Your task to perform on an android device: Open Chrome and go to the settings page Image 0: 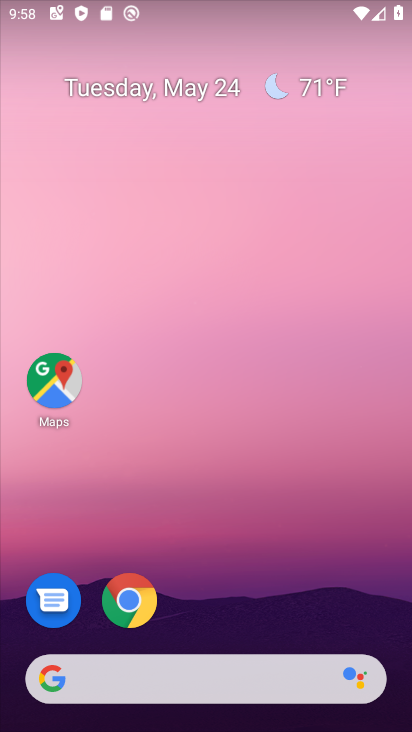
Step 0: click (142, 611)
Your task to perform on an android device: Open Chrome and go to the settings page Image 1: 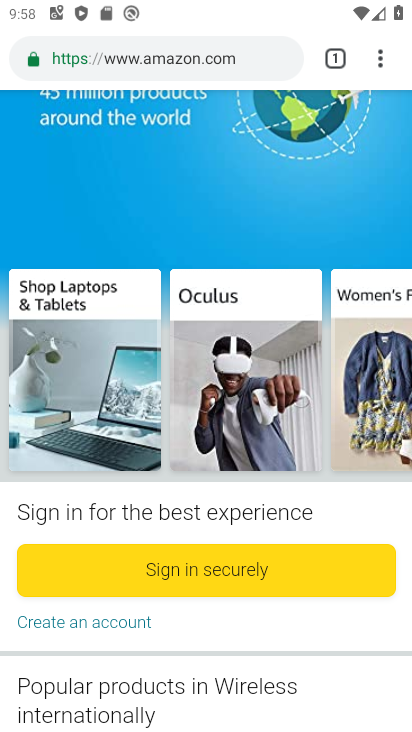
Step 1: click (373, 72)
Your task to perform on an android device: Open Chrome and go to the settings page Image 2: 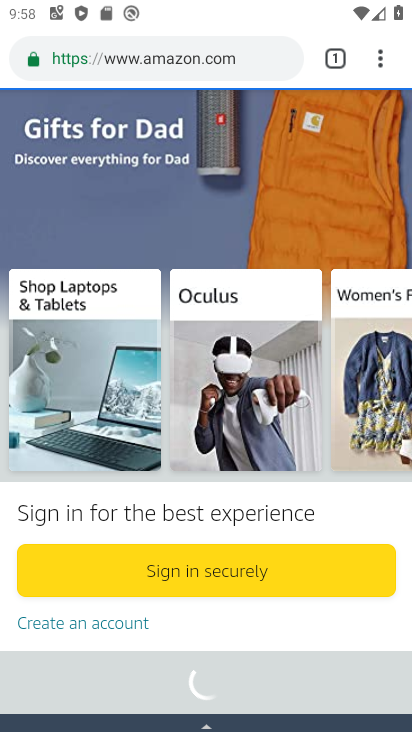
Step 2: drag from (183, 519) to (307, 332)
Your task to perform on an android device: Open Chrome and go to the settings page Image 3: 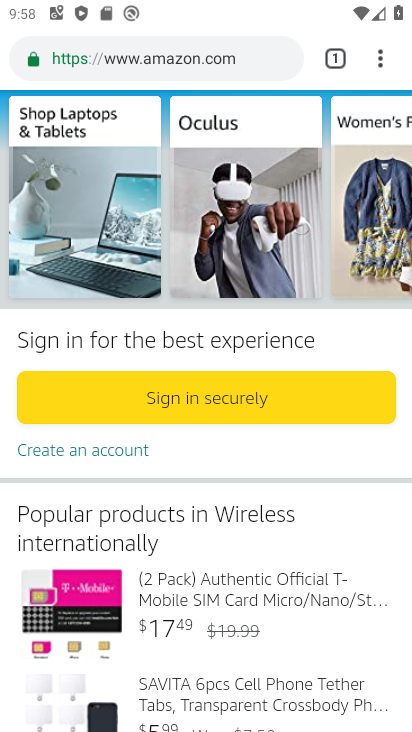
Step 3: click (377, 66)
Your task to perform on an android device: Open Chrome and go to the settings page Image 4: 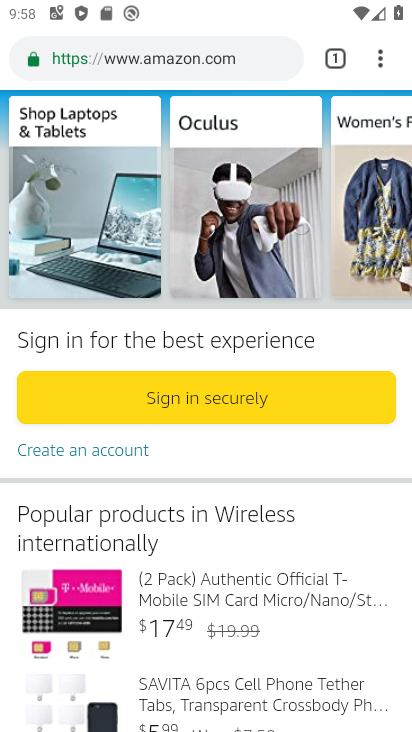
Step 4: click (382, 57)
Your task to perform on an android device: Open Chrome and go to the settings page Image 5: 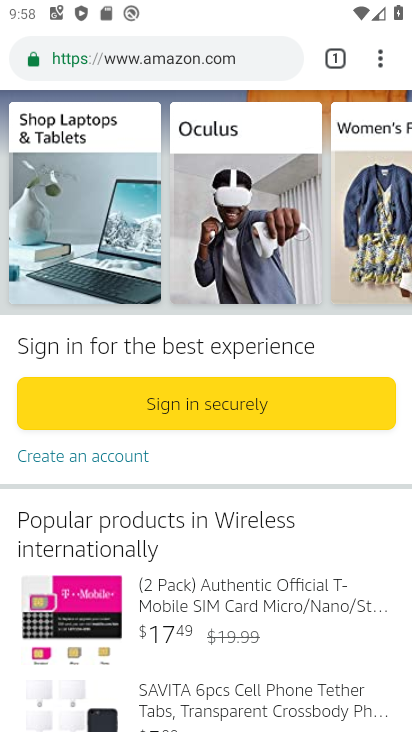
Step 5: click (383, 59)
Your task to perform on an android device: Open Chrome and go to the settings page Image 6: 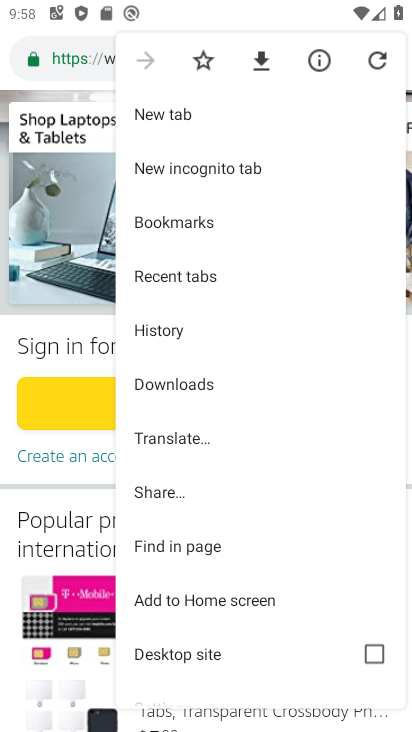
Step 6: drag from (196, 606) to (204, 482)
Your task to perform on an android device: Open Chrome and go to the settings page Image 7: 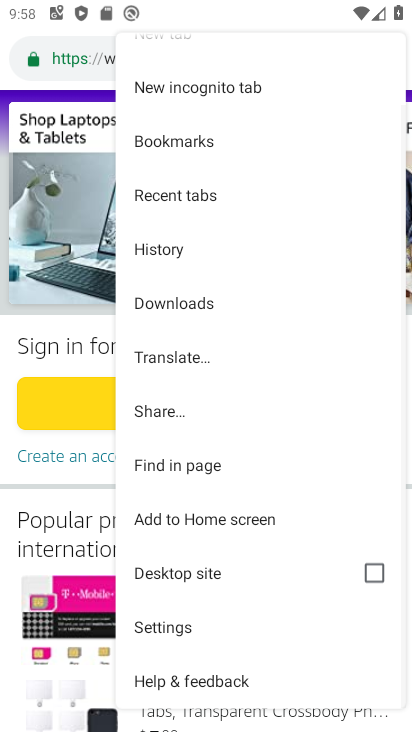
Step 7: click (179, 627)
Your task to perform on an android device: Open Chrome and go to the settings page Image 8: 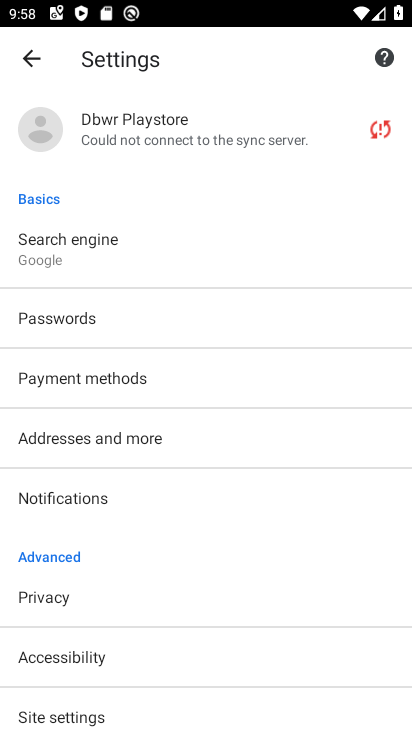
Step 8: task complete